Your task to perform on an android device: empty trash in google photos Image 0: 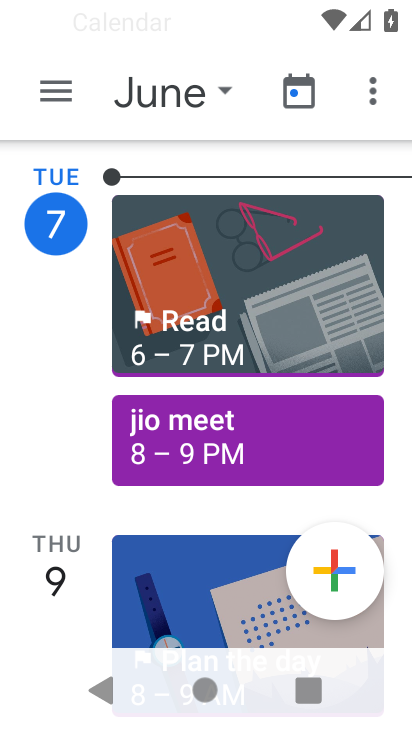
Step 0: press home button
Your task to perform on an android device: empty trash in google photos Image 1: 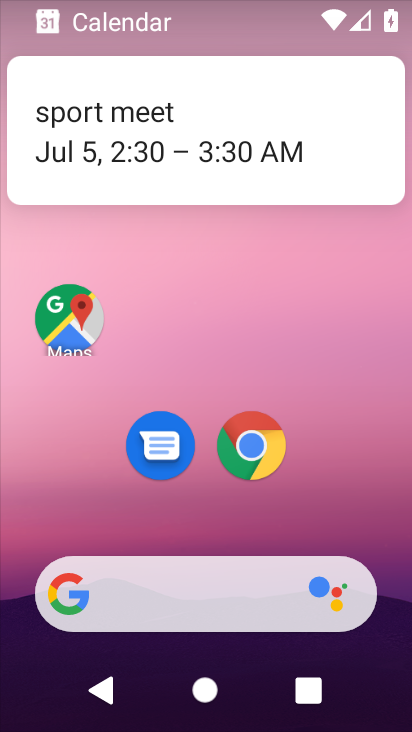
Step 1: drag from (160, 721) to (195, 179)
Your task to perform on an android device: empty trash in google photos Image 2: 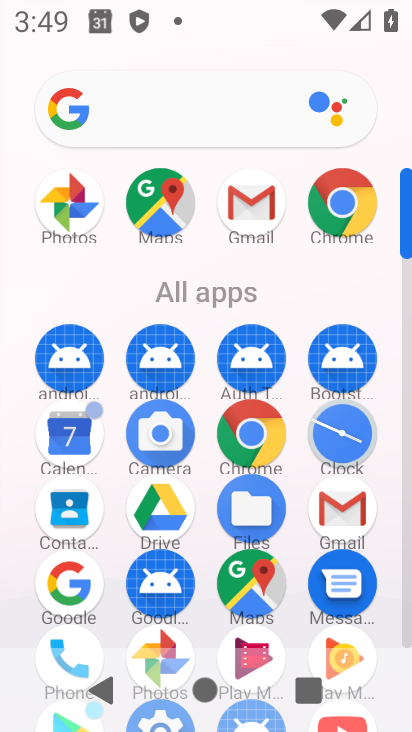
Step 2: click (59, 216)
Your task to perform on an android device: empty trash in google photos Image 3: 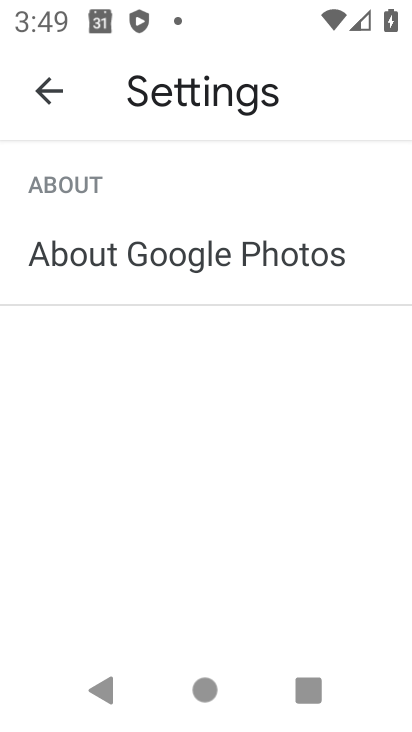
Step 3: click (47, 94)
Your task to perform on an android device: empty trash in google photos Image 4: 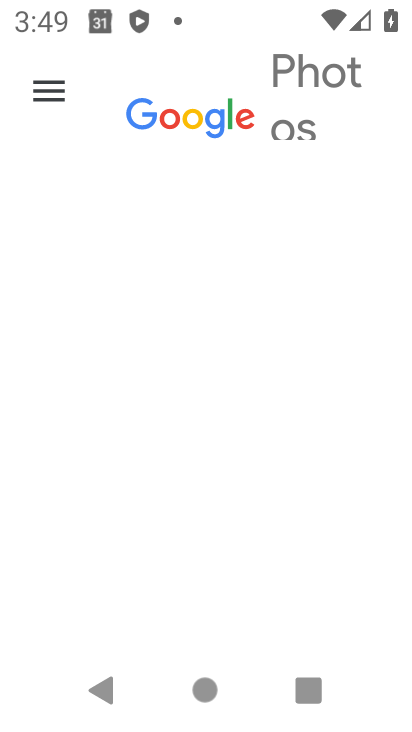
Step 4: click (47, 96)
Your task to perform on an android device: empty trash in google photos Image 5: 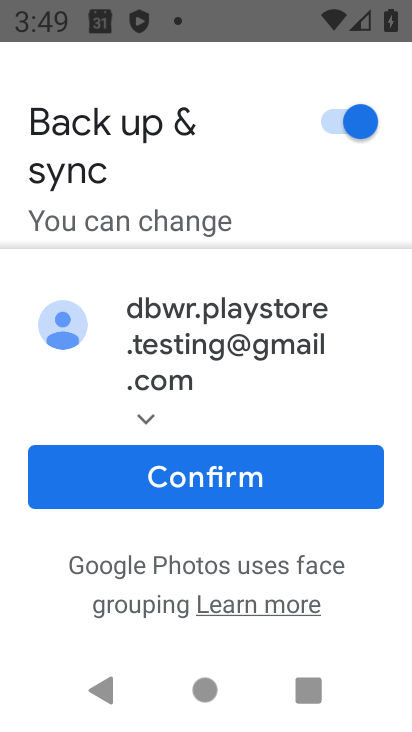
Step 5: click (208, 486)
Your task to perform on an android device: empty trash in google photos Image 6: 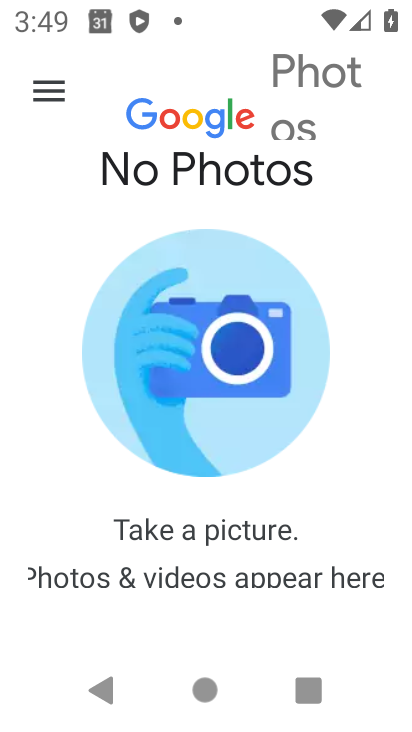
Step 6: click (50, 93)
Your task to perform on an android device: empty trash in google photos Image 7: 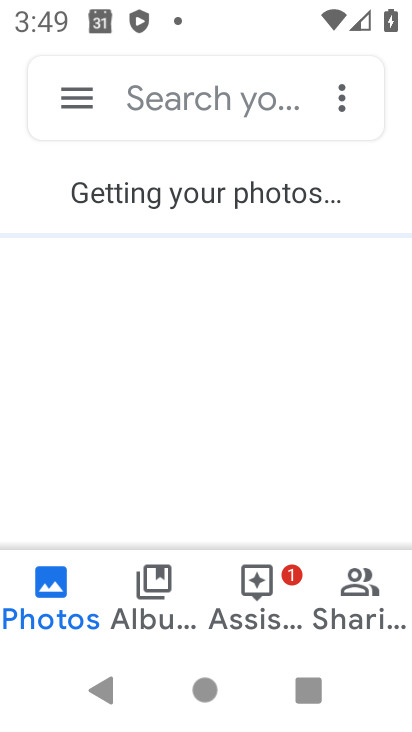
Step 7: click (89, 102)
Your task to perform on an android device: empty trash in google photos Image 8: 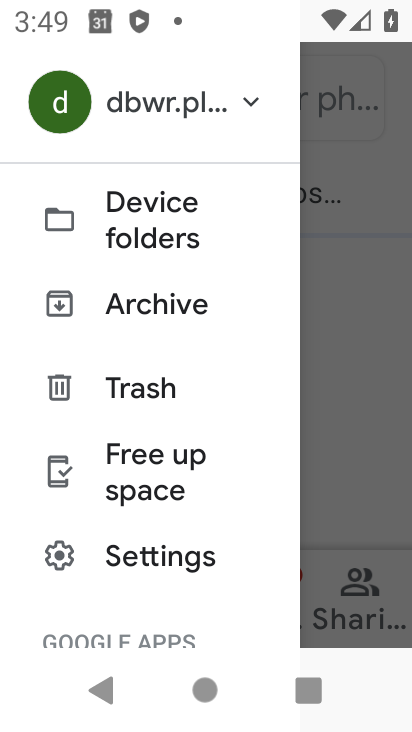
Step 8: click (139, 394)
Your task to perform on an android device: empty trash in google photos Image 9: 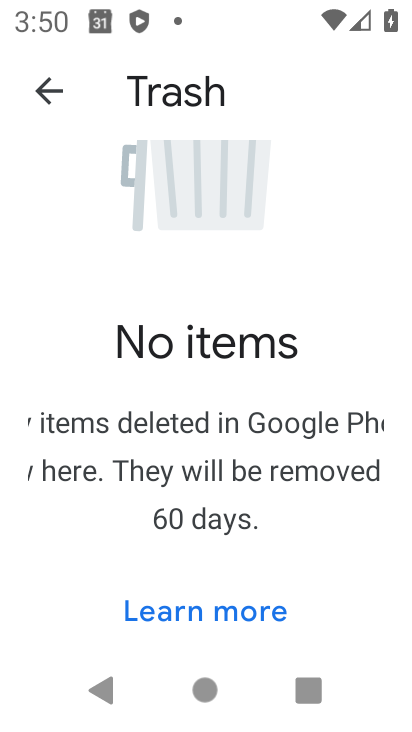
Step 9: task complete